Your task to perform on an android device: Search for pizza restaurants on Maps Image 0: 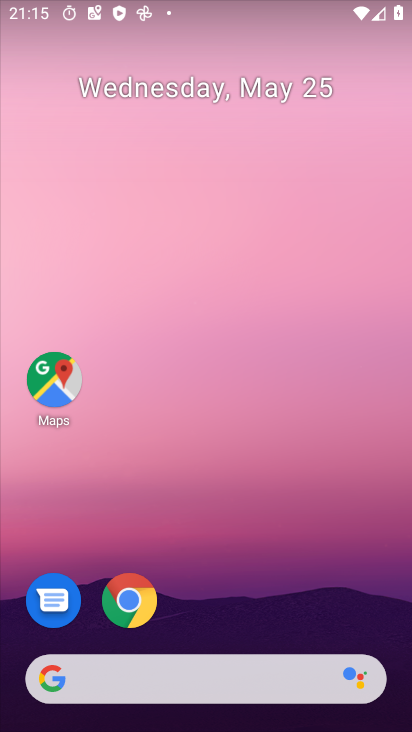
Step 0: drag from (404, 618) to (342, 130)
Your task to perform on an android device: Search for pizza restaurants on Maps Image 1: 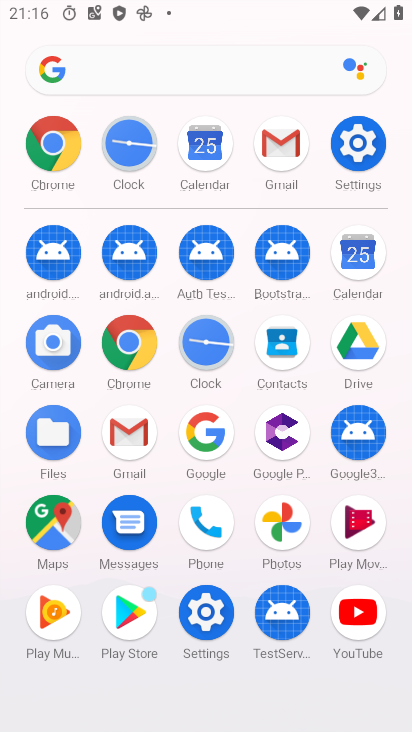
Step 1: click (51, 516)
Your task to perform on an android device: Search for pizza restaurants on Maps Image 2: 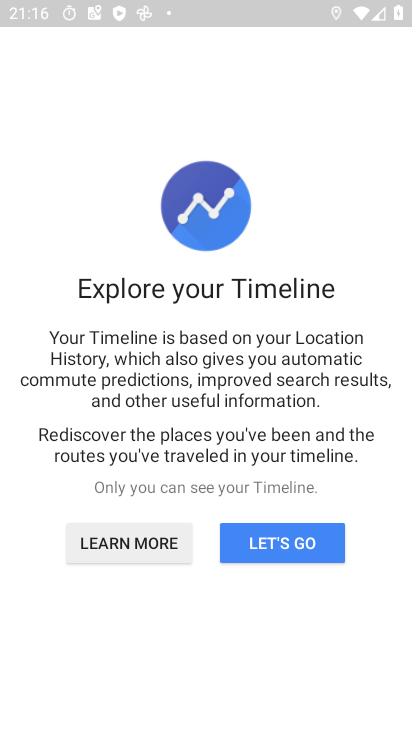
Step 2: click (324, 541)
Your task to perform on an android device: Search for pizza restaurants on Maps Image 3: 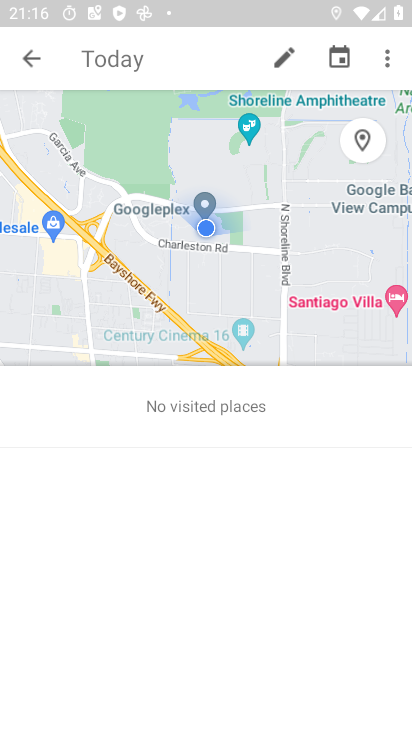
Step 3: click (42, 55)
Your task to perform on an android device: Search for pizza restaurants on Maps Image 4: 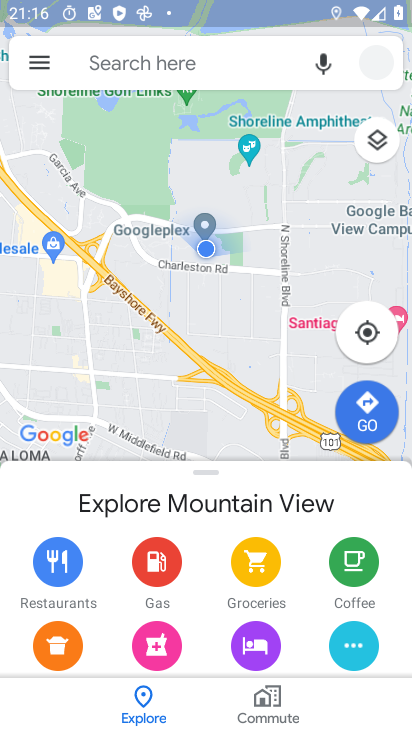
Step 4: click (180, 71)
Your task to perform on an android device: Search for pizza restaurants on Maps Image 5: 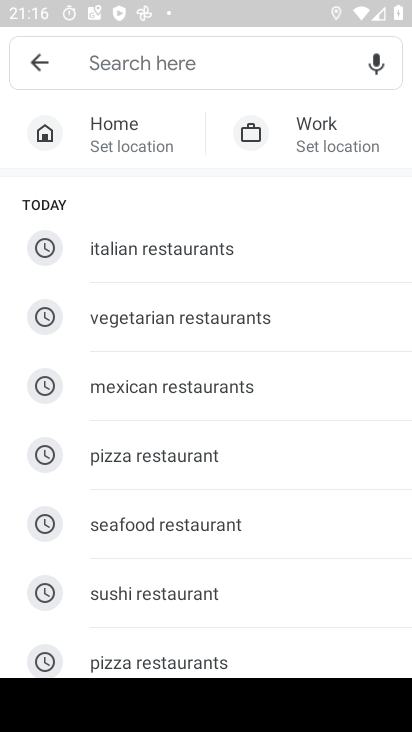
Step 5: click (167, 455)
Your task to perform on an android device: Search for pizza restaurants on Maps Image 6: 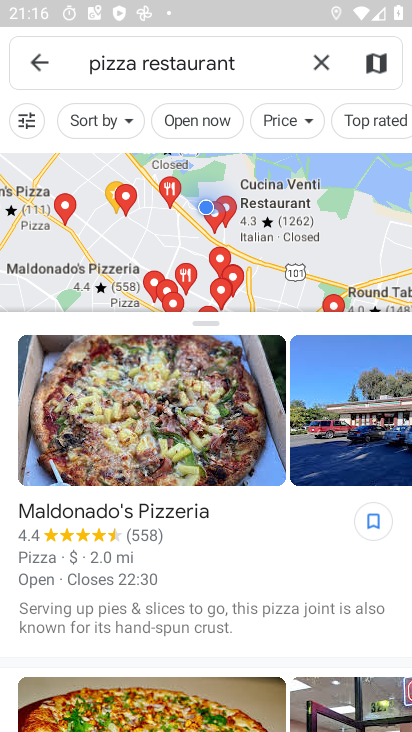
Step 6: task complete